Your task to perform on an android device: show emergency info Image 0: 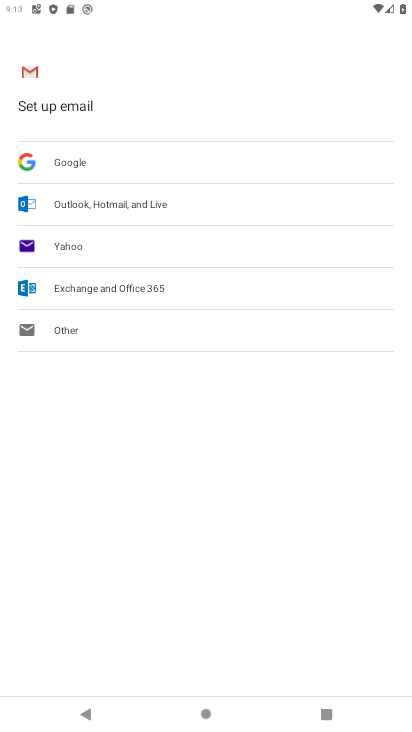
Step 0: press home button
Your task to perform on an android device: show emergency info Image 1: 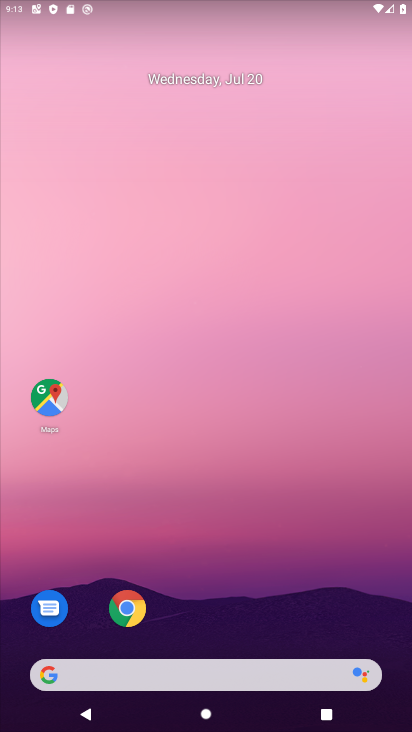
Step 1: drag from (230, 730) to (232, 164)
Your task to perform on an android device: show emergency info Image 2: 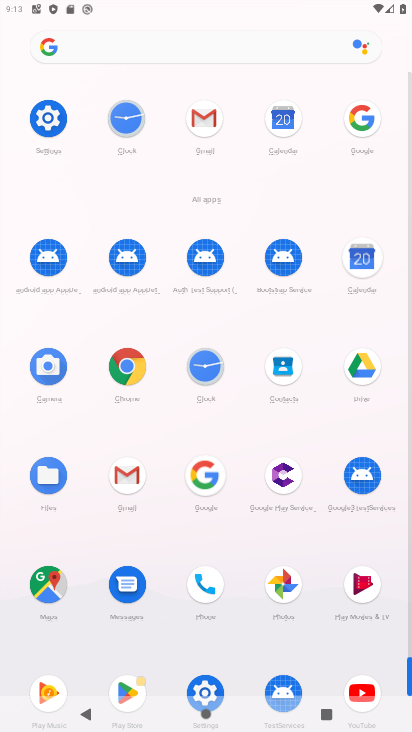
Step 2: click (214, 675)
Your task to perform on an android device: show emergency info Image 3: 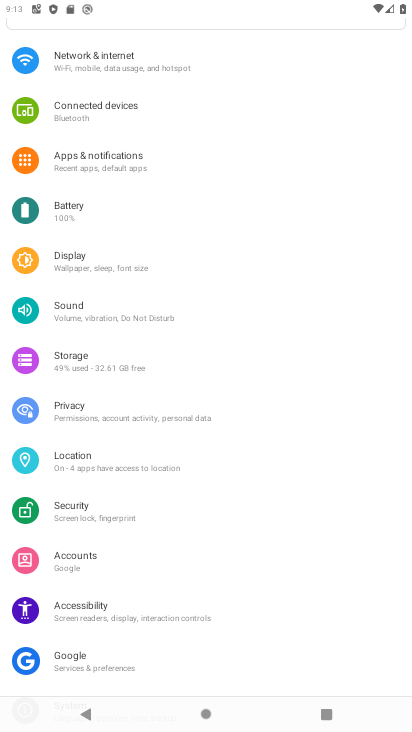
Step 3: drag from (117, 666) to (233, 174)
Your task to perform on an android device: show emergency info Image 4: 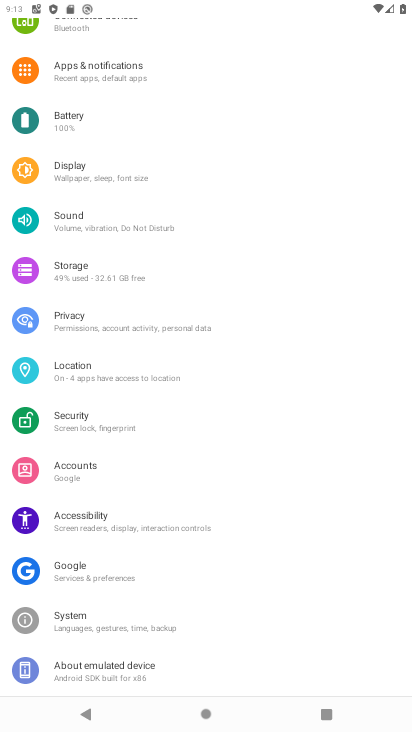
Step 4: click (144, 682)
Your task to perform on an android device: show emergency info Image 5: 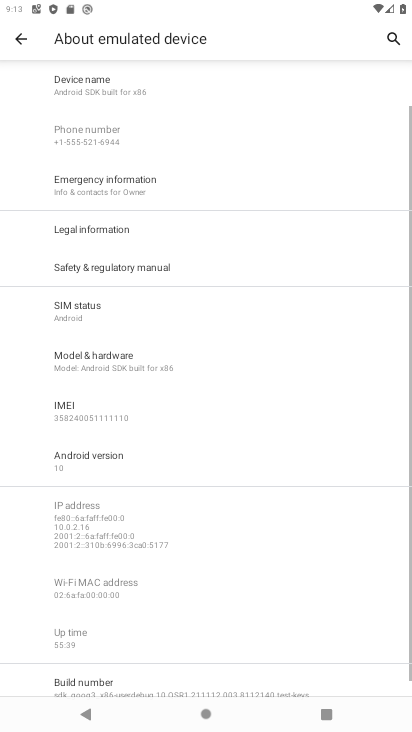
Step 5: task complete